Your task to perform on an android device: turn off improve location accuracy Image 0: 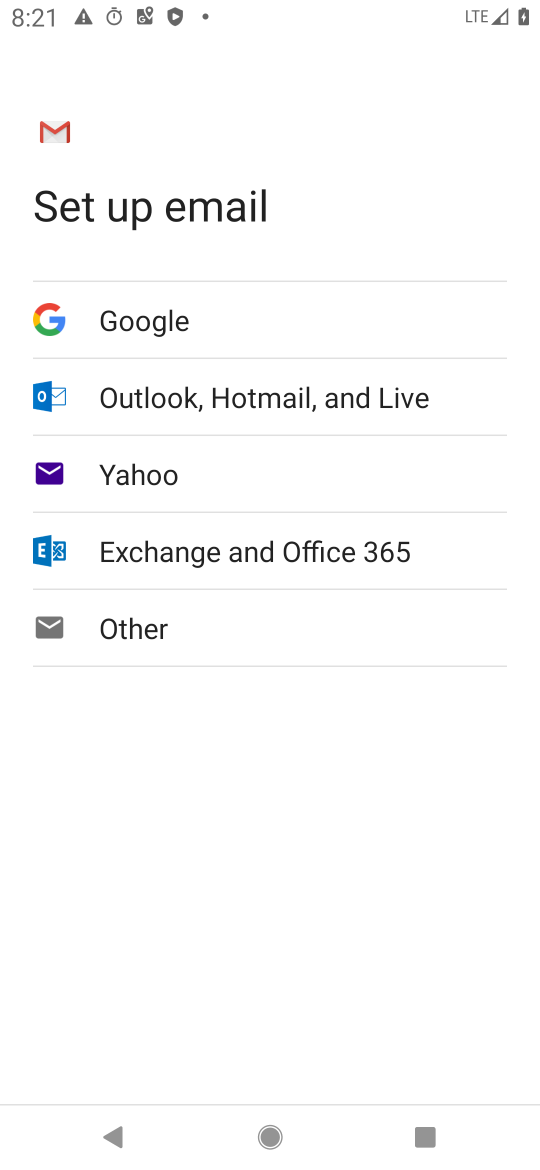
Step 0: click (436, 927)
Your task to perform on an android device: turn off improve location accuracy Image 1: 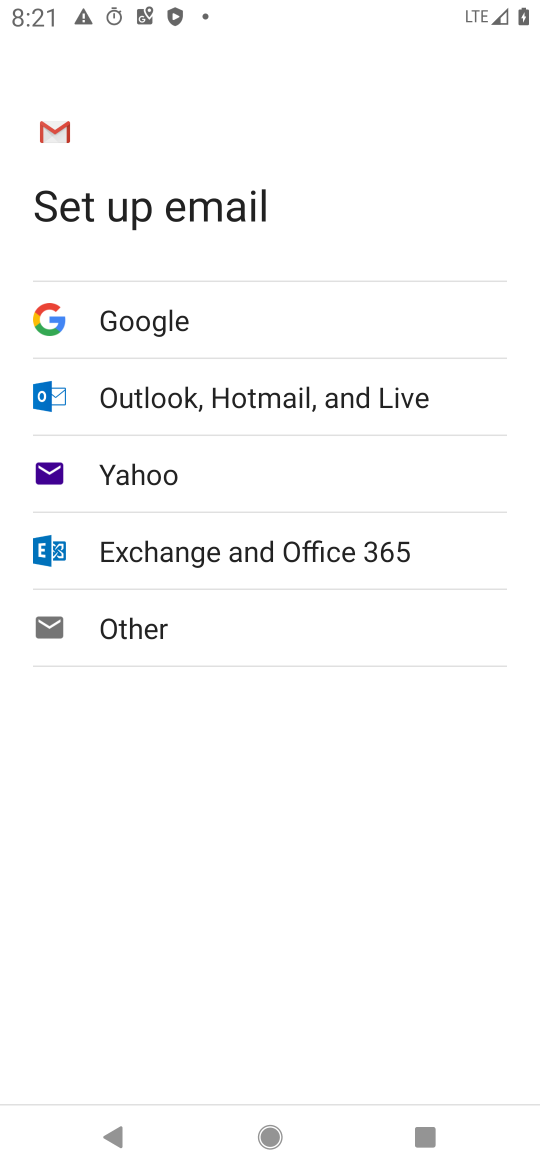
Step 1: press home button
Your task to perform on an android device: turn off improve location accuracy Image 2: 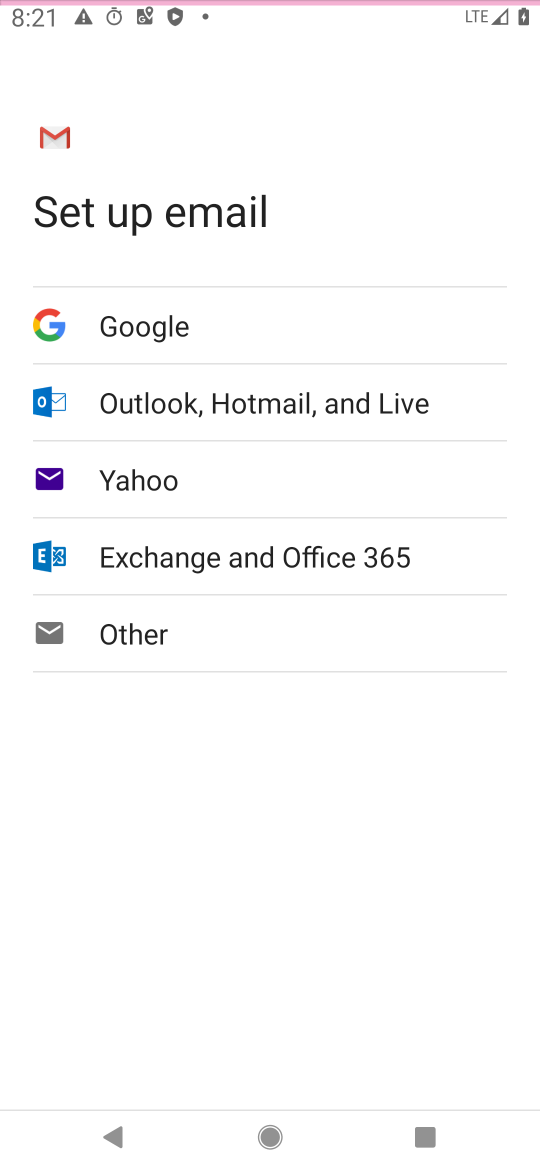
Step 2: drag from (177, 1055) to (234, 692)
Your task to perform on an android device: turn off improve location accuracy Image 3: 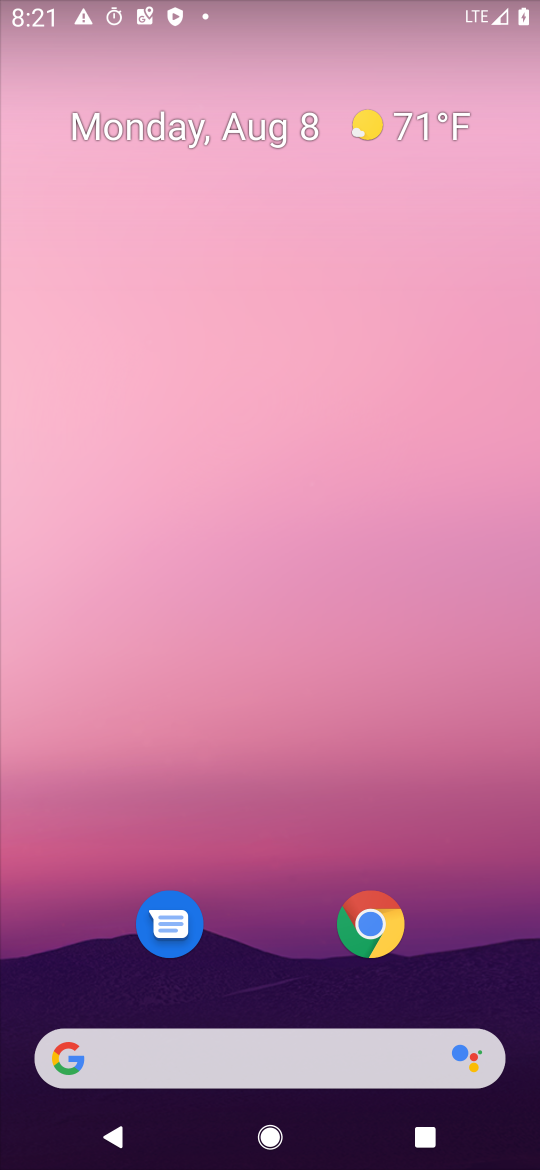
Step 3: drag from (281, 738) to (324, 230)
Your task to perform on an android device: turn off improve location accuracy Image 4: 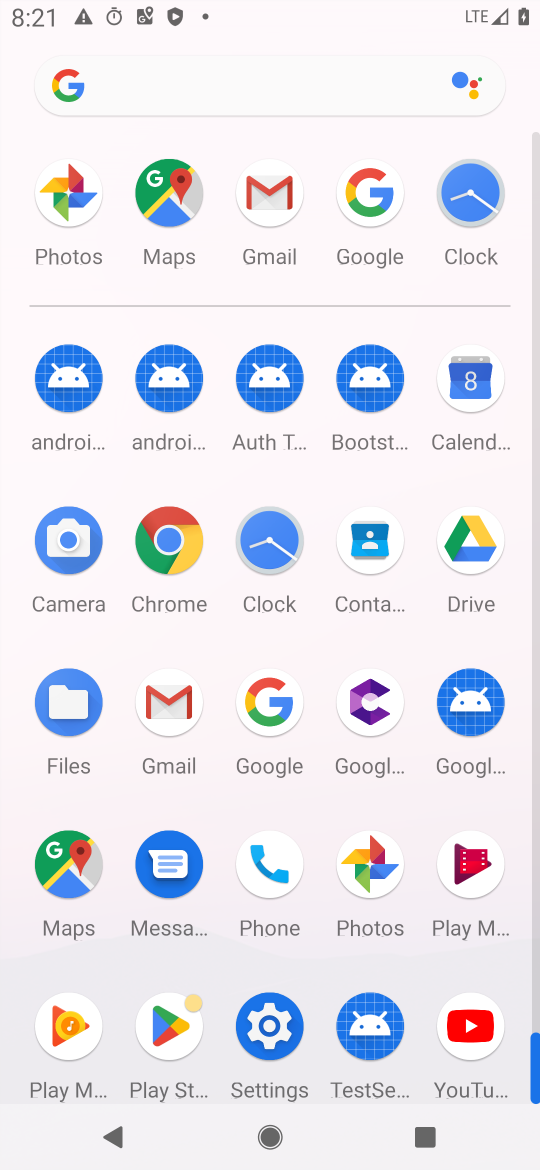
Step 4: click (244, 1030)
Your task to perform on an android device: turn off improve location accuracy Image 5: 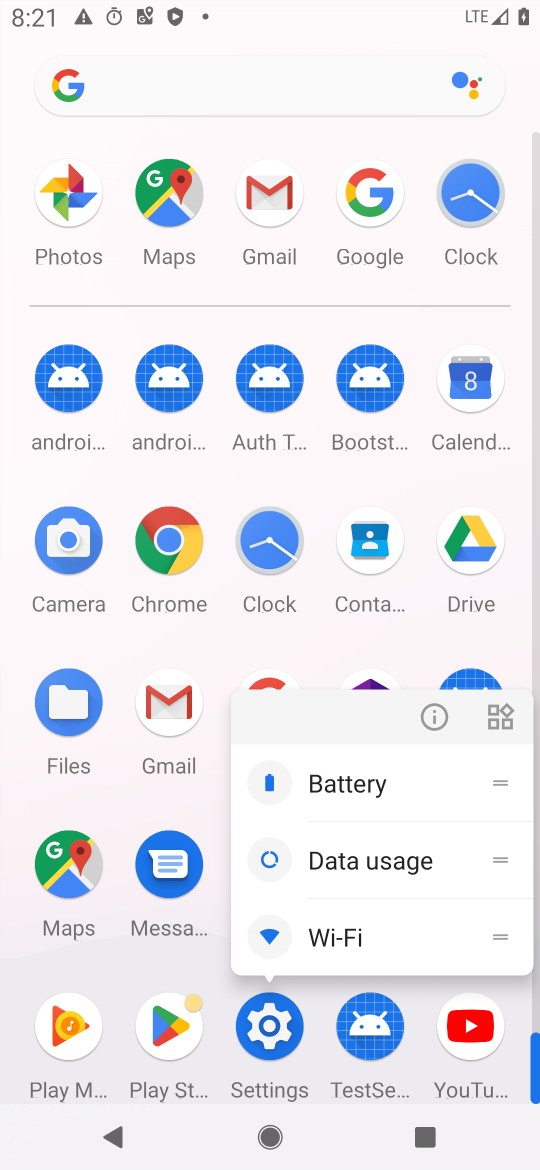
Step 5: click (422, 726)
Your task to perform on an android device: turn off improve location accuracy Image 6: 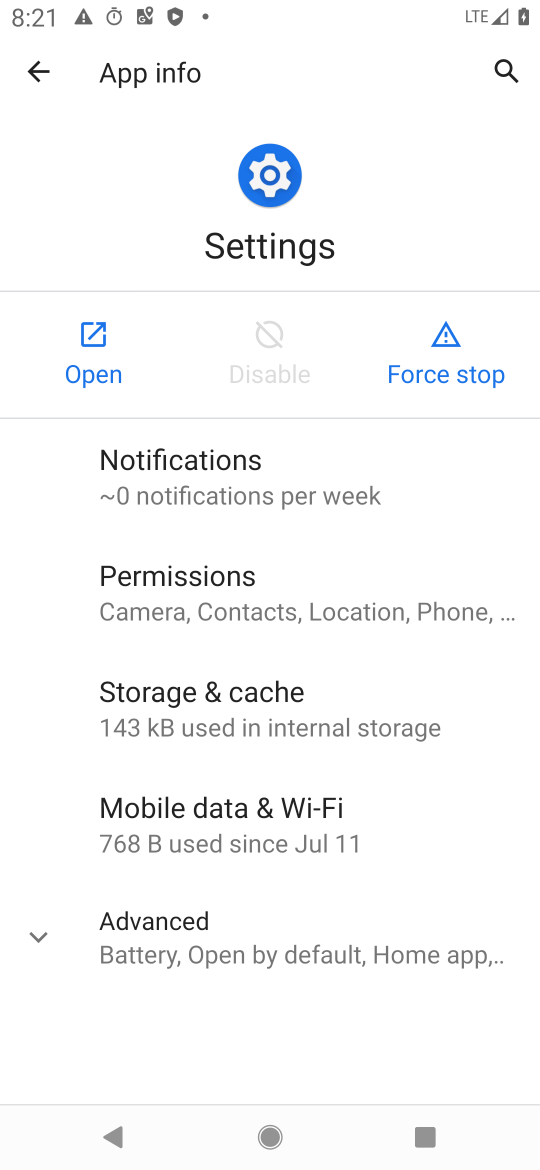
Step 6: click (89, 356)
Your task to perform on an android device: turn off improve location accuracy Image 7: 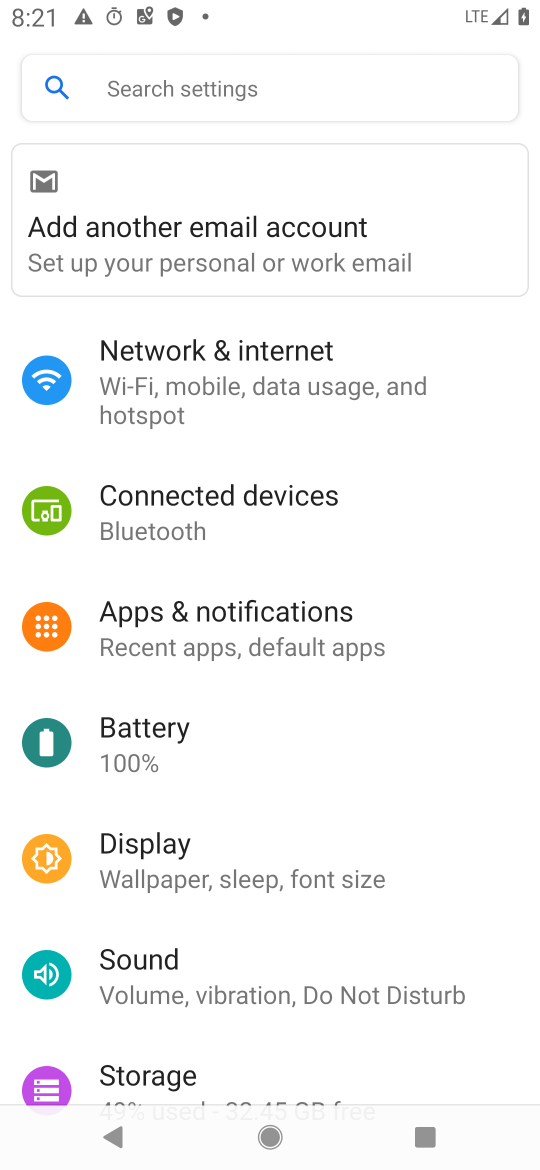
Step 7: drag from (151, 1030) to (181, 254)
Your task to perform on an android device: turn off improve location accuracy Image 8: 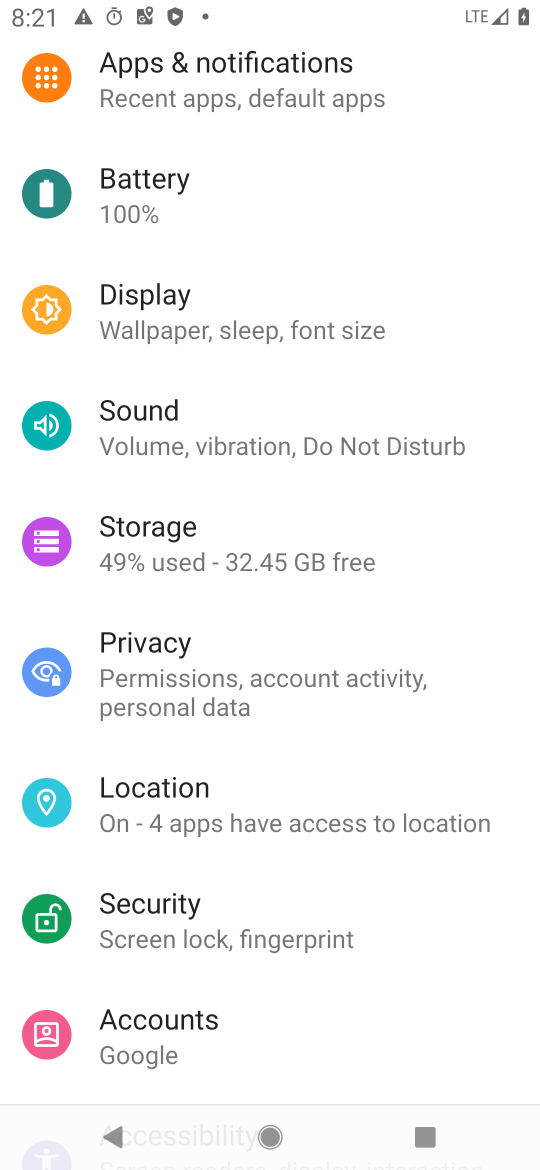
Step 8: click (228, 783)
Your task to perform on an android device: turn off improve location accuracy Image 9: 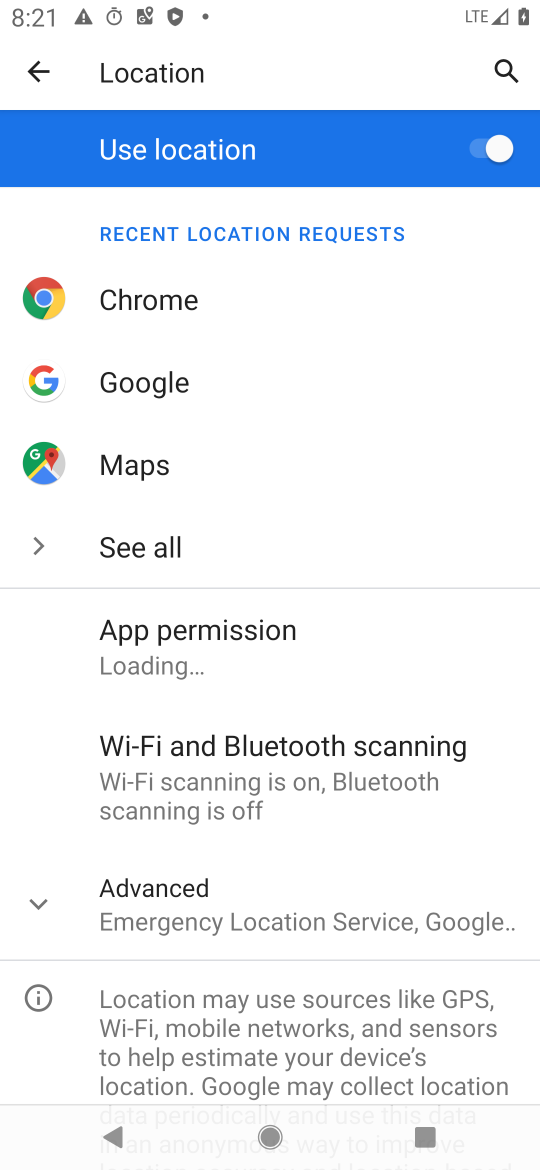
Step 9: click (121, 906)
Your task to perform on an android device: turn off improve location accuracy Image 10: 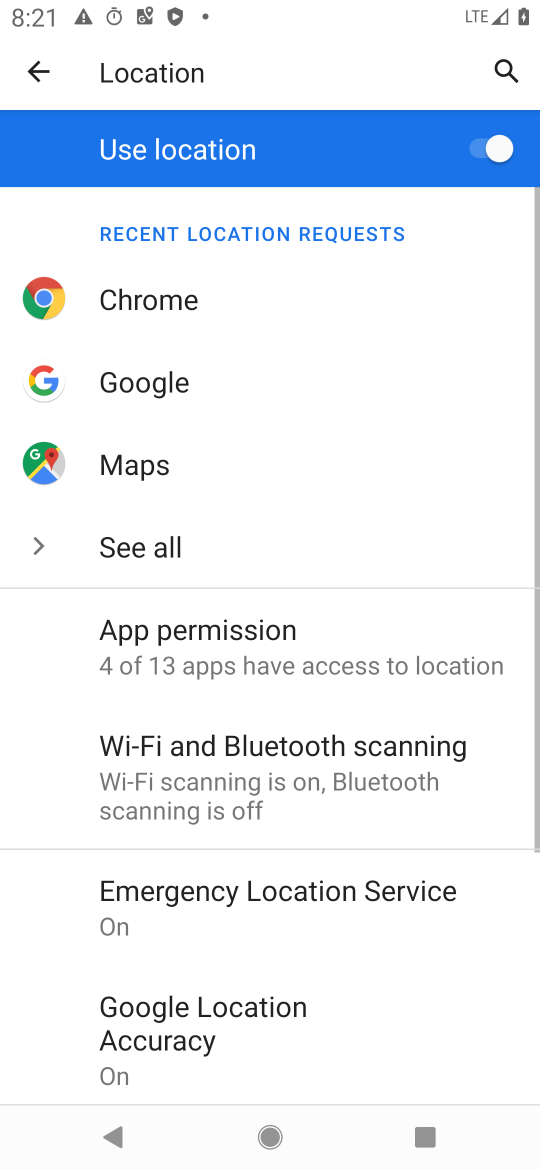
Step 10: drag from (314, 1000) to (368, 72)
Your task to perform on an android device: turn off improve location accuracy Image 11: 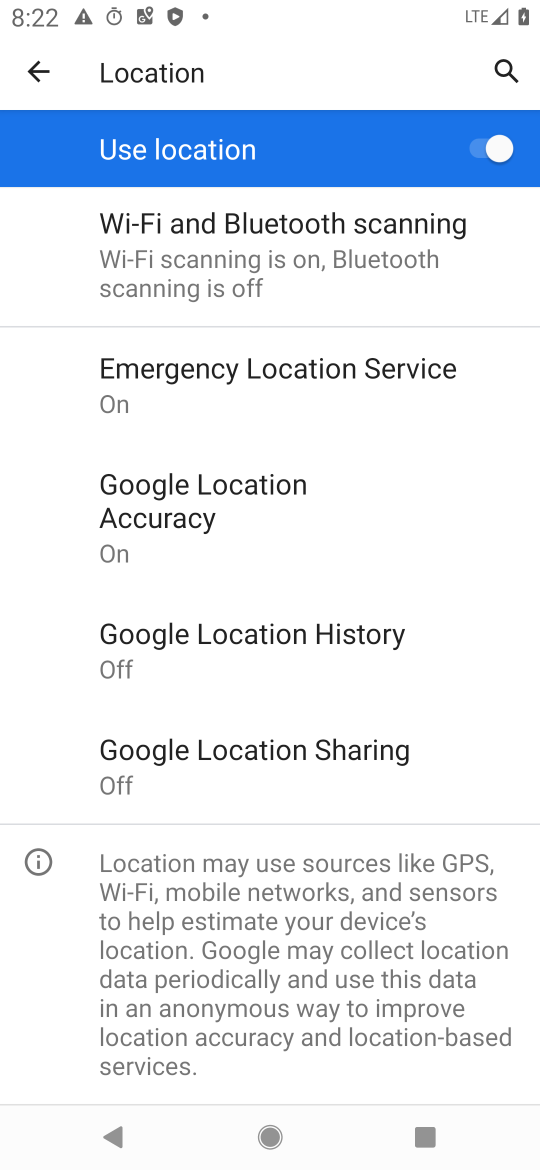
Step 11: click (236, 499)
Your task to perform on an android device: turn off improve location accuracy Image 12: 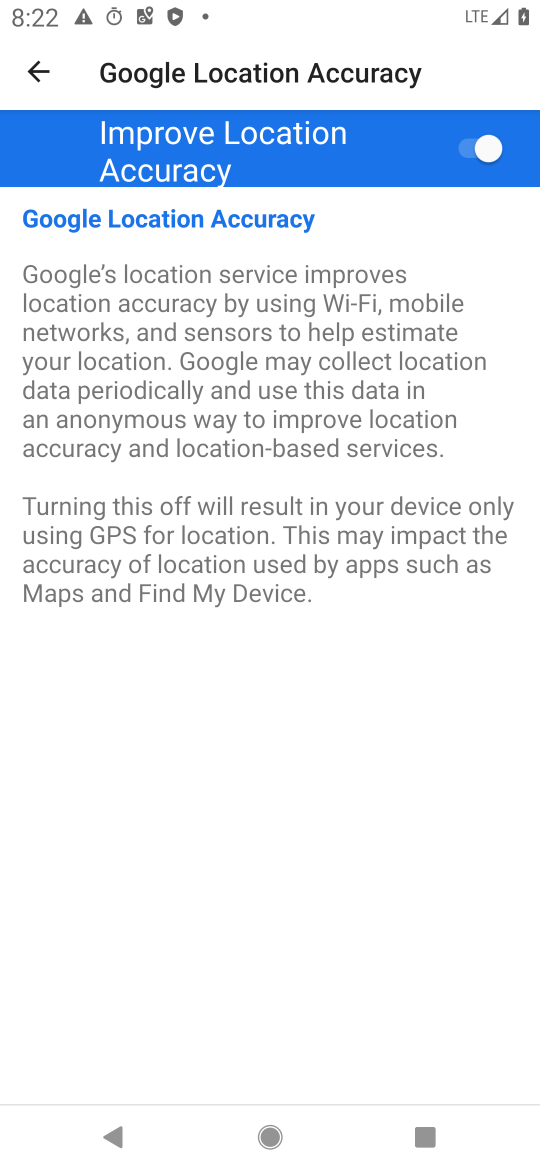
Step 12: click (484, 134)
Your task to perform on an android device: turn off improve location accuracy Image 13: 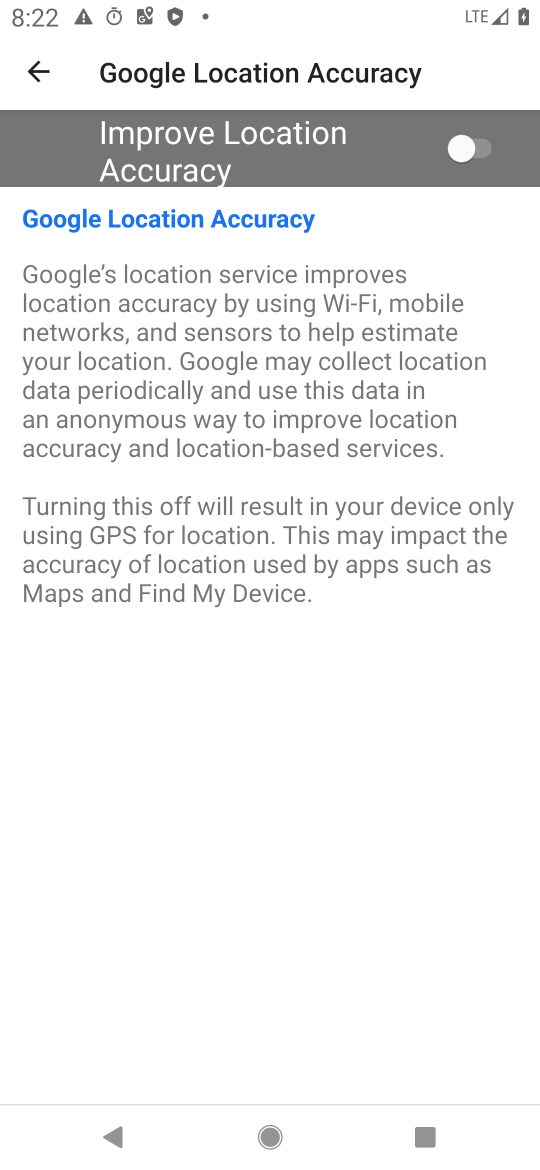
Step 13: task complete